Your task to perform on an android device: Go to location settings Image 0: 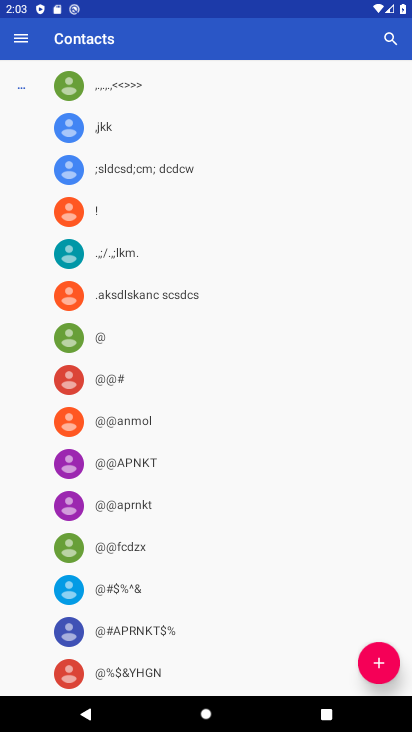
Step 0: press back button
Your task to perform on an android device: Go to location settings Image 1: 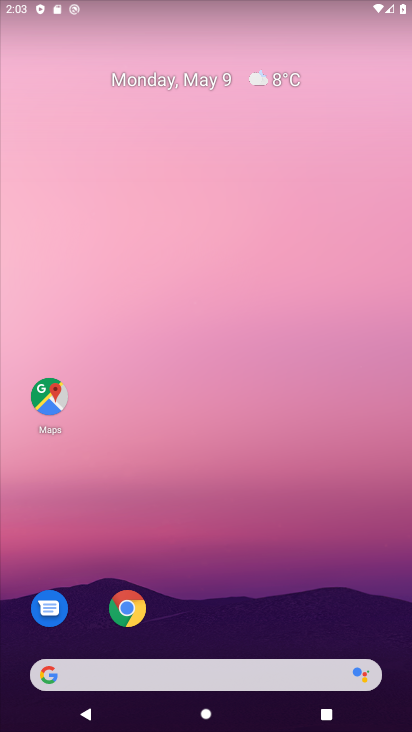
Step 1: drag from (187, 647) to (278, 327)
Your task to perform on an android device: Go to location settings Image 2: 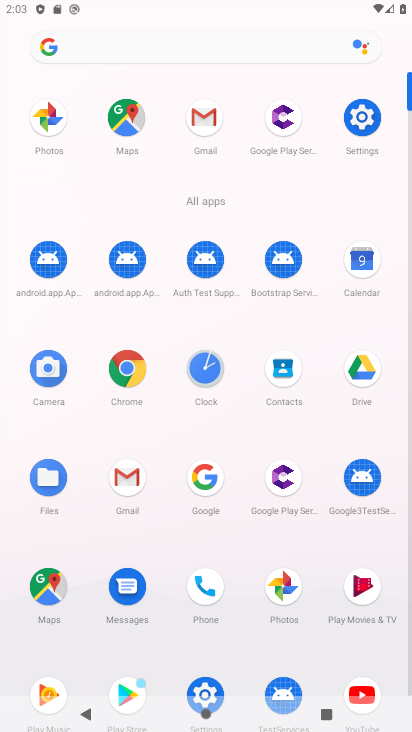
Step 2: click (208, 687)
Your task to perform on an android device: Go to location settings Image 3: 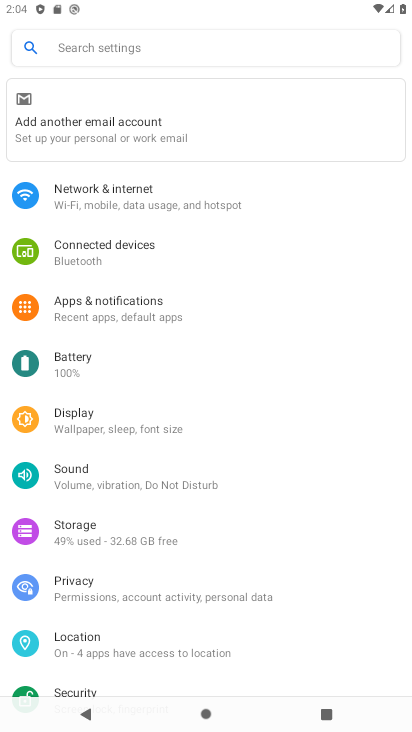
Step 3: drag from (182, 557) to (227, 417)
Your task to perform on an android device: Go to location settings Image 4: 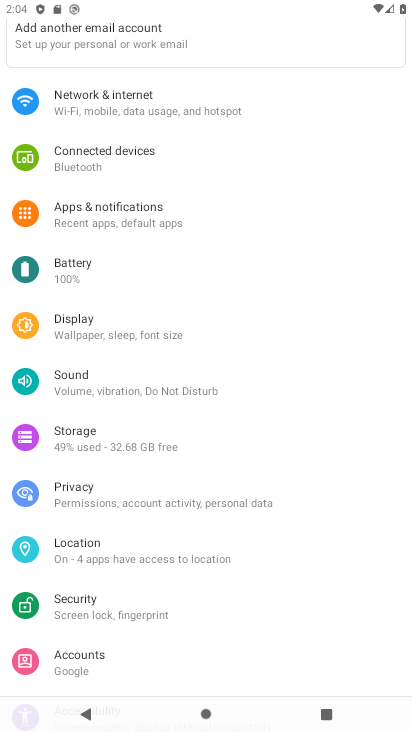
Step 4: click (155, 544)
Your task to perform on an android device: Go to location settings Image 5: 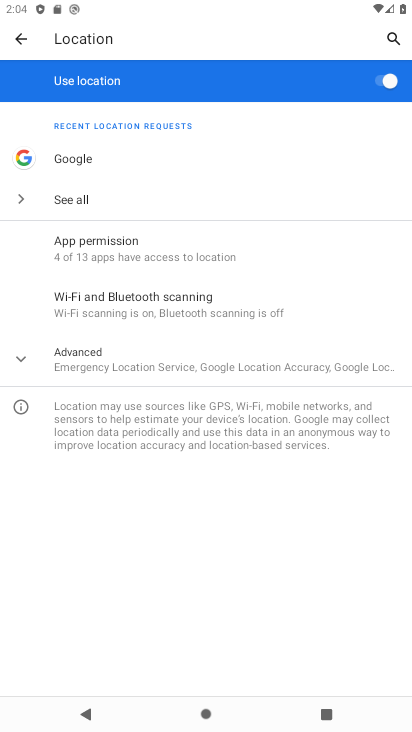
Step 5: click (164, 385)
Your task to perform on an android device: Go to location settings Image 6: 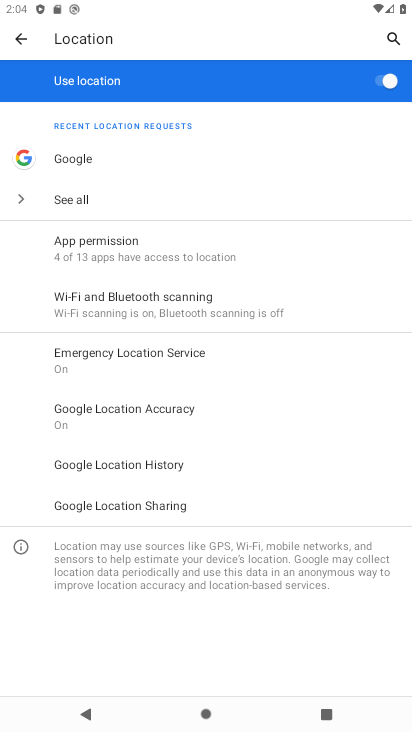
Step 6: task complete